Your task to perform on an android device: check battery use Image 0: 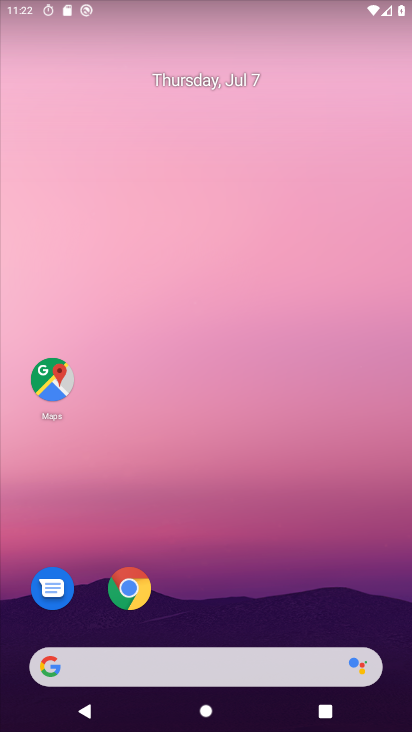
Step 0: drag from (201, 666) to (307, 116)
Your task to perform on an android device: check battery use Image 1: 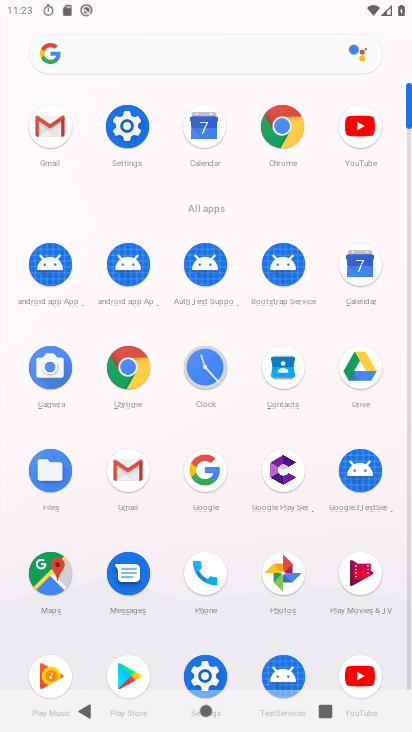
Step 1: click (134, 130)
Your task to perform on an android device: check battery use Image 2: 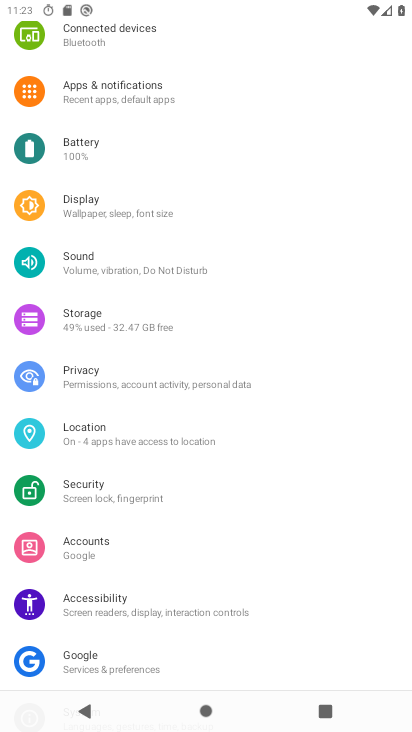
Step 2: click (81, 153)
Your task to perform on an android device: check battery use Image 3: 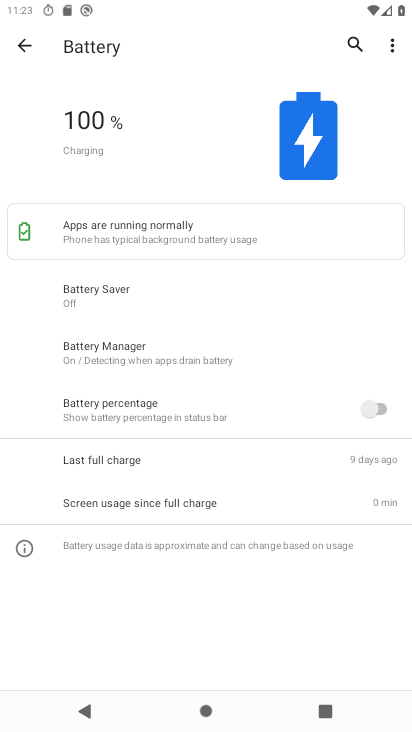
Step 3: click (392, 47)
Your task to perform on an android device: check battery use Image 4: 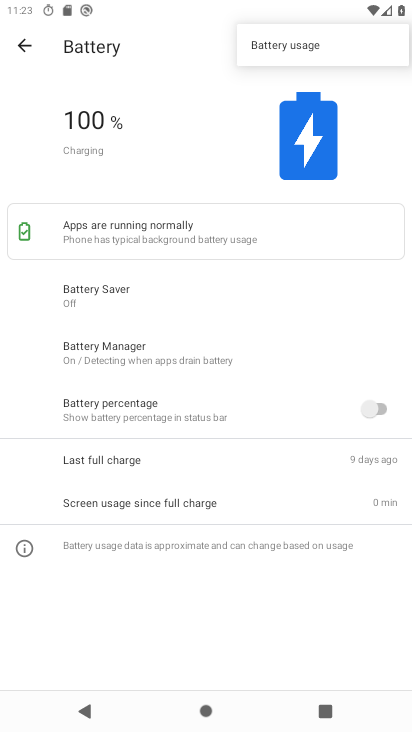
Step 4: click (272, 42)
Your task to perform on an android device: check battery use Image 5: 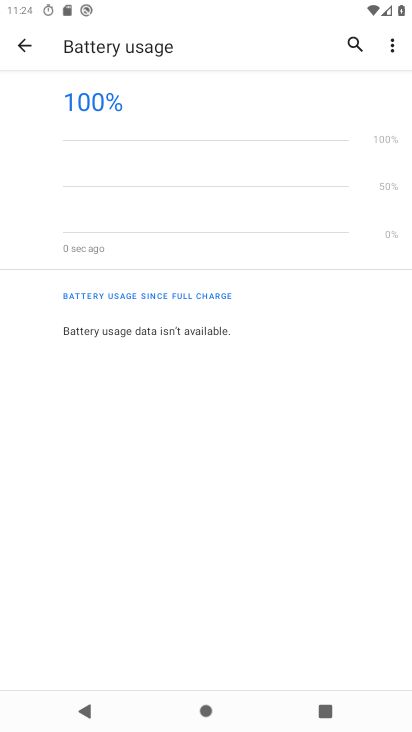
Step 5: task complete